Your task to perform on an android device: toggle notifications settings in the gmail app Image 0: 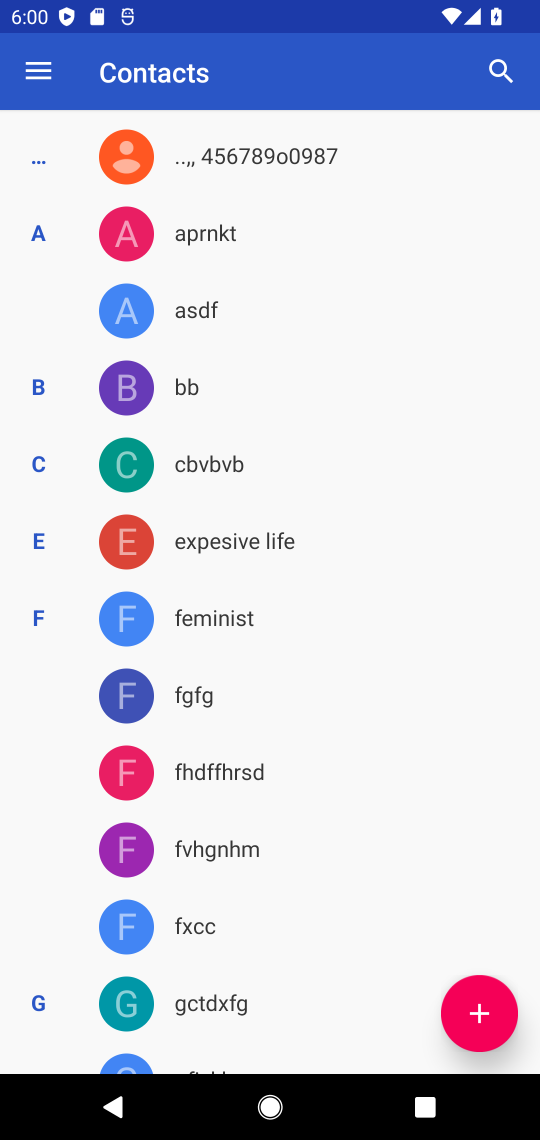
Step 0: press home button
Your task to perform on an android device: toggle notifications settings in the gmail app Image 1: 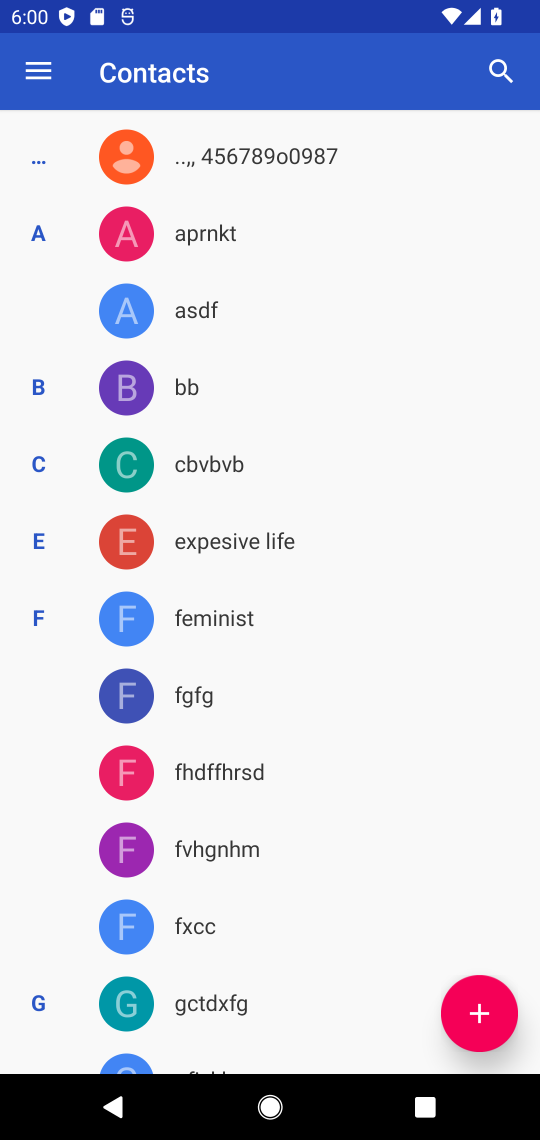
Step 1: press home button
Your task to perform on an android device: toggle notifications settings in the gmail app Image 2: 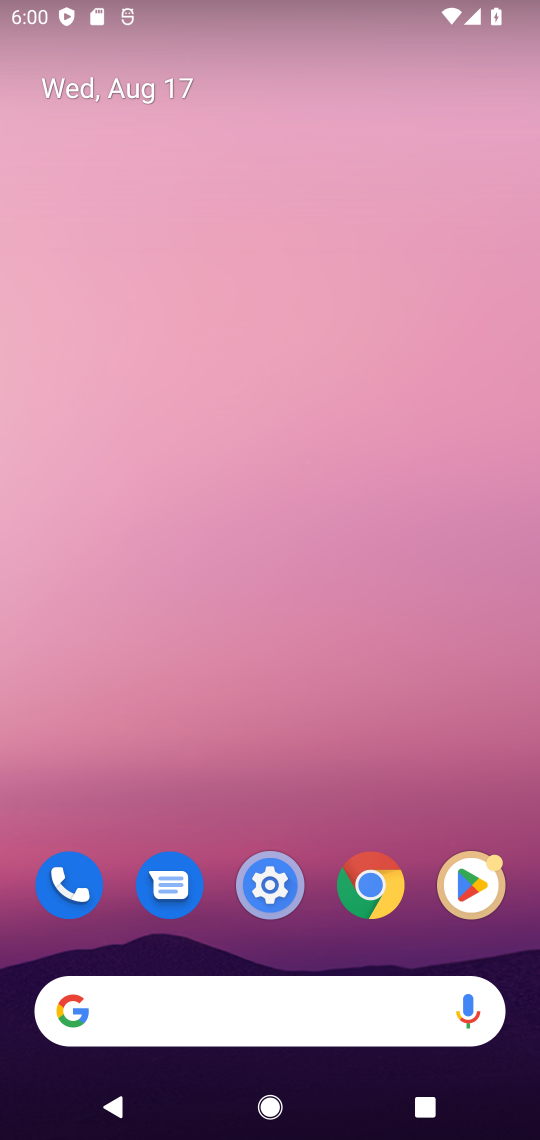
Step 2: drag from (277, 574) to (322, 96)
Your task to perform on an android device: toggle notifications settings in the gmail app Image 3: 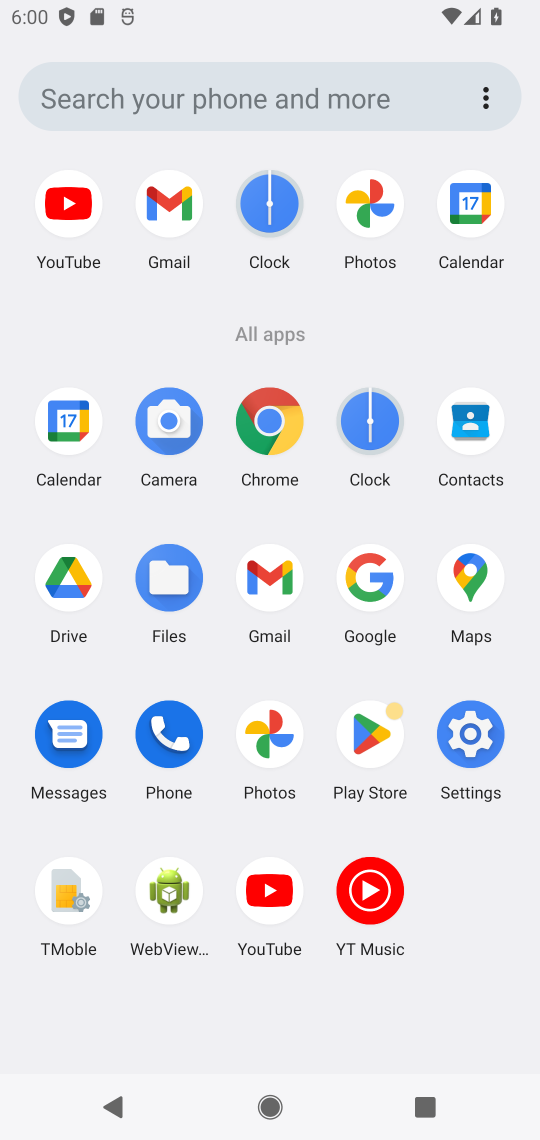
Step 3: click (292, 580)
Your task to perform on an android device: toggle notifications settings in the gmail app Image 4: 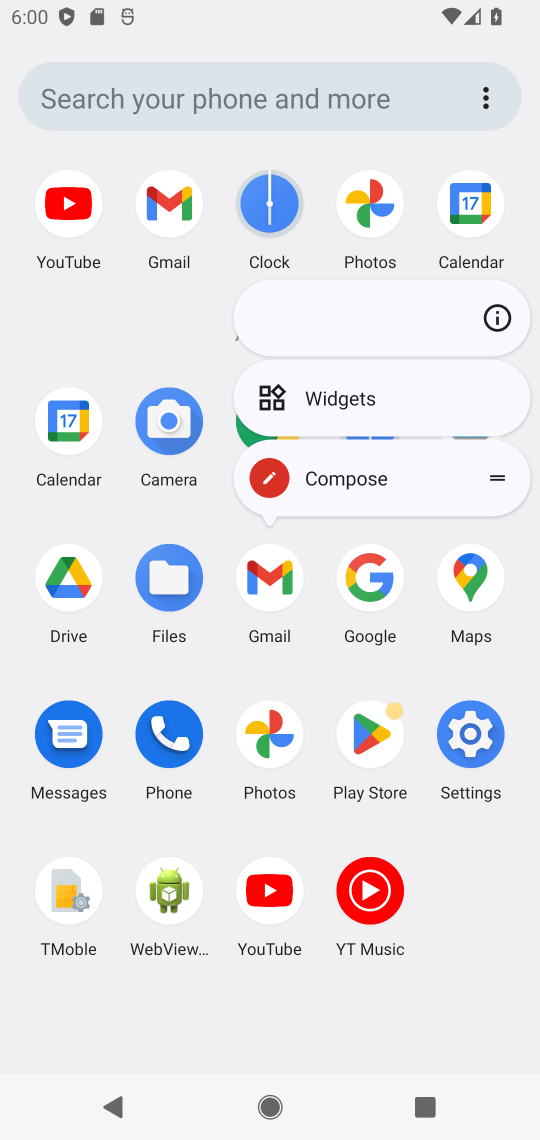
Step 4: click (292, 583)
Your task to perform on an android device: toggle notifications settings in the gmail app Image 5: 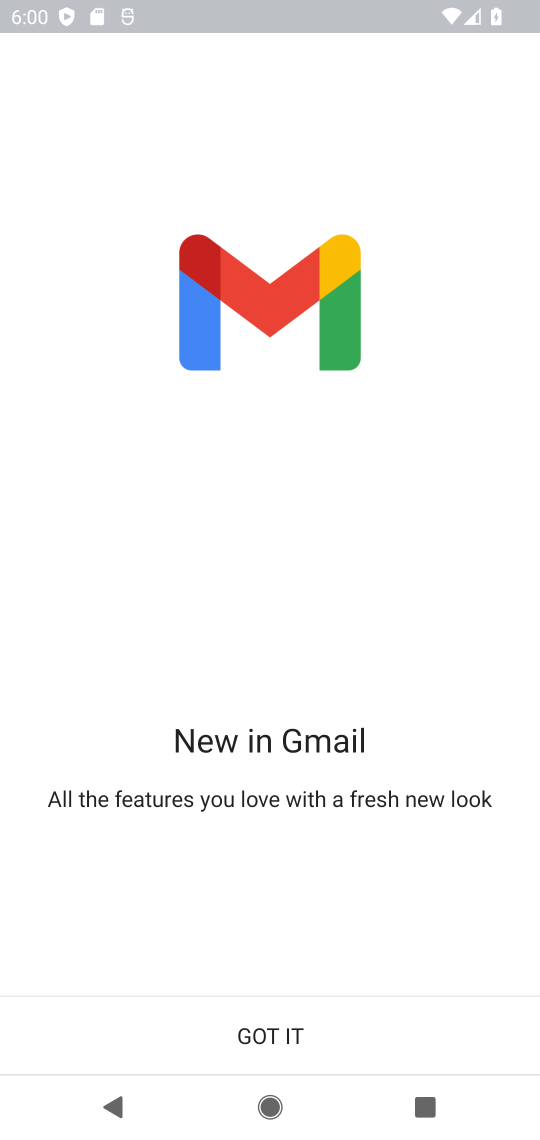
Step 5: click (285, 1005)
Your task to perform on an android device: toggle notifications settings in the gmail app Image 6: 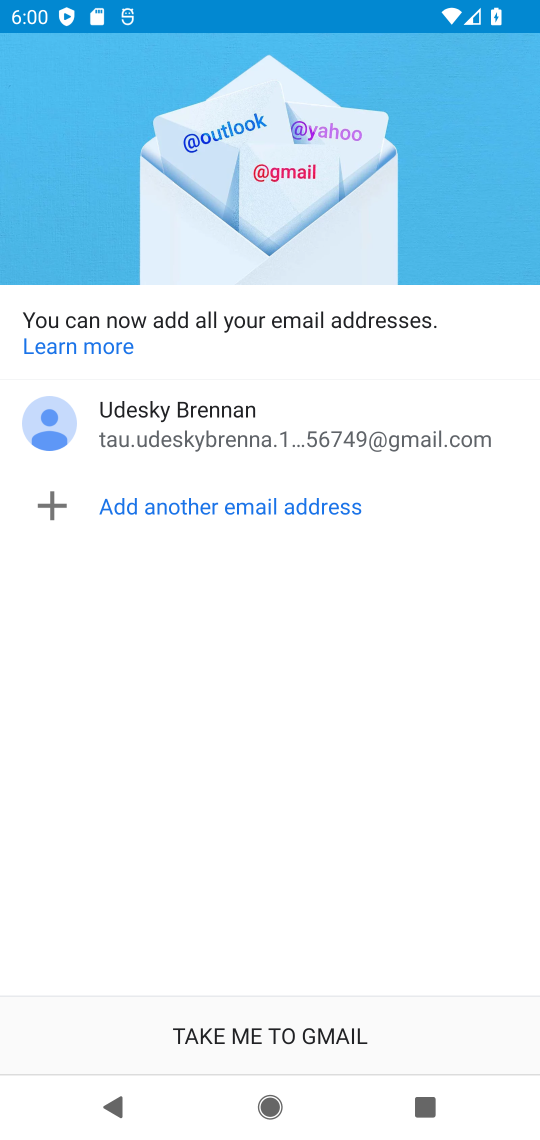
Step 6: click (292, 1026)
Your task to perform on an android device: toggle notifications settings in the gmail app Image 7: 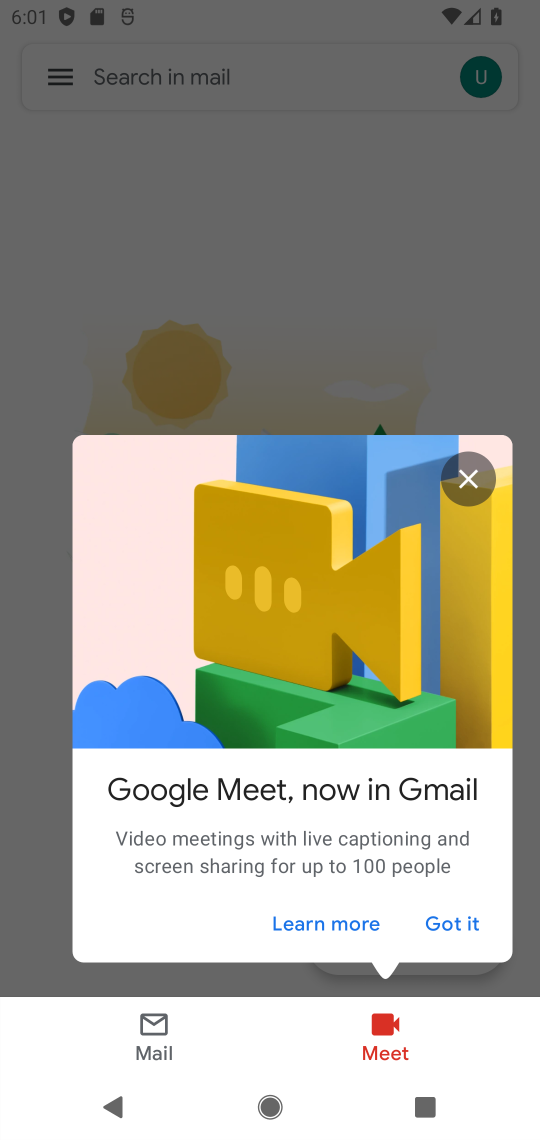
Step 7: click (461, 480)
Your task to perform on an android device: toggle notifications settings in the gmail app Image 8: 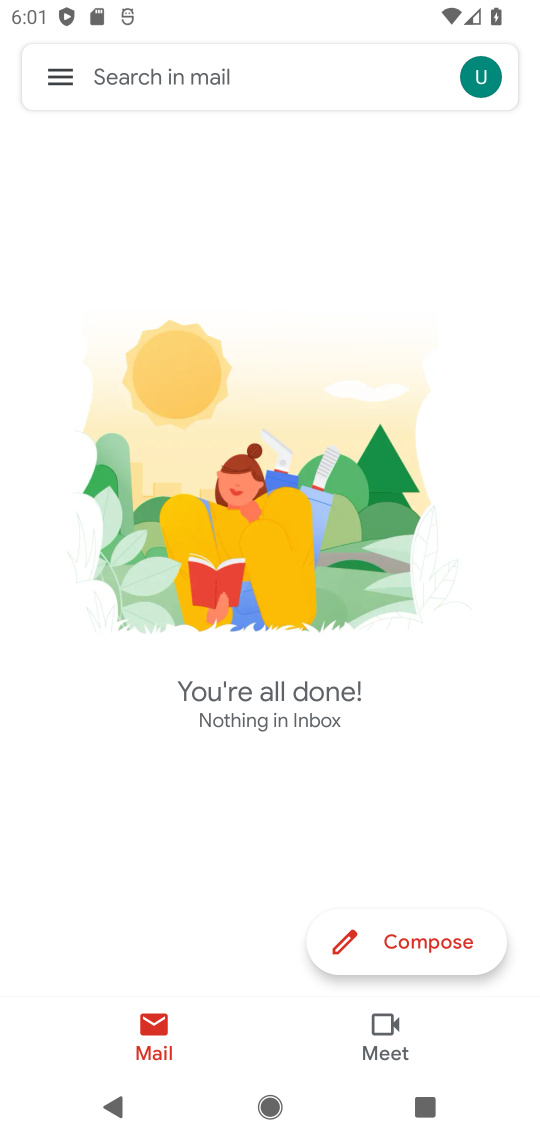
Step 8: click (52, 68)
Your task to perform on an android device: toggle notifications settings in the gmail app Image 9: 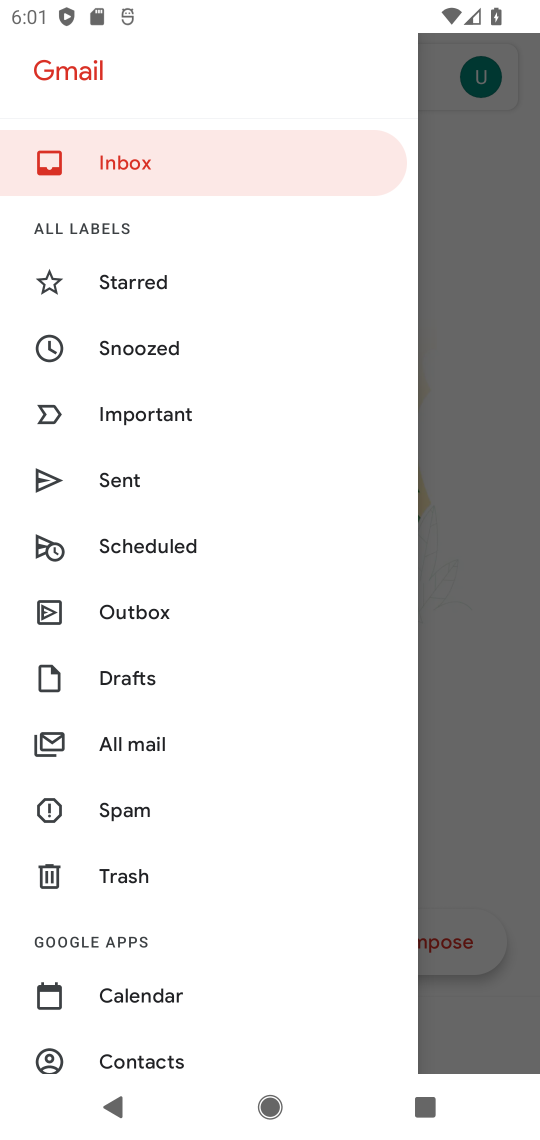
Step 9: drag from (146, 888) to (314, 153)
Your task to perform on an android device: toggle notifications settings in the gmail app Image 10: 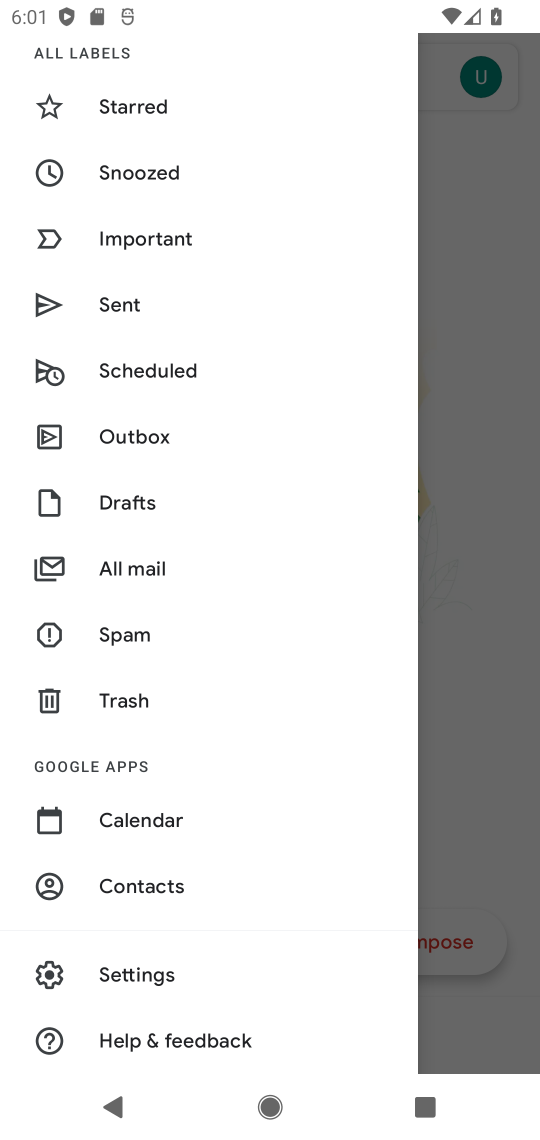
Step 10: click (138, 960)
Your task to perform on an android device: toggle notifications settings in the gmail app Image 11: 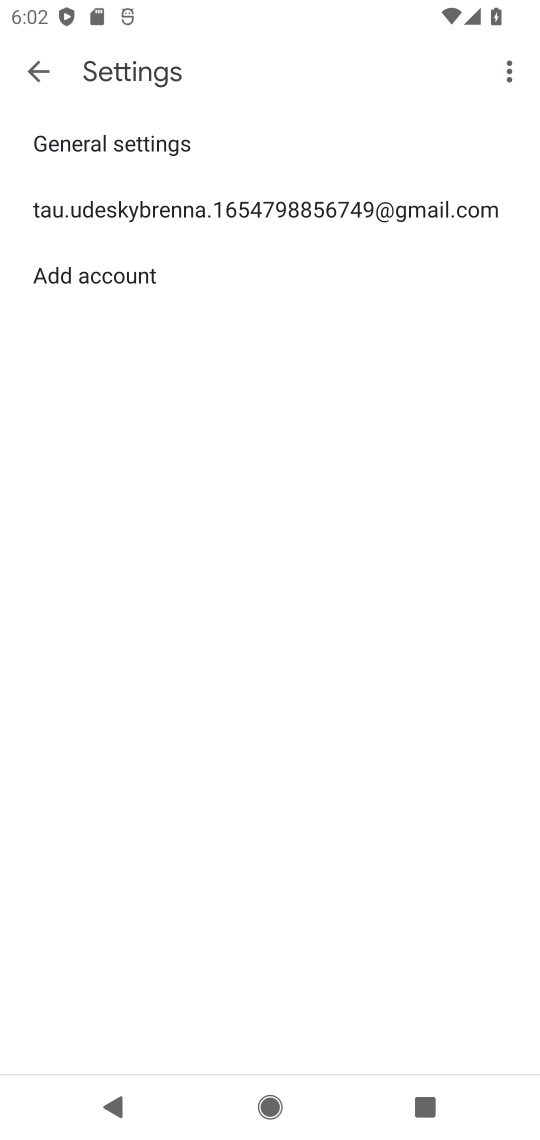
Step 11: click (336, 199)
Your task to perform on an android device: toggle notifications settings in the gmail app Image 12: 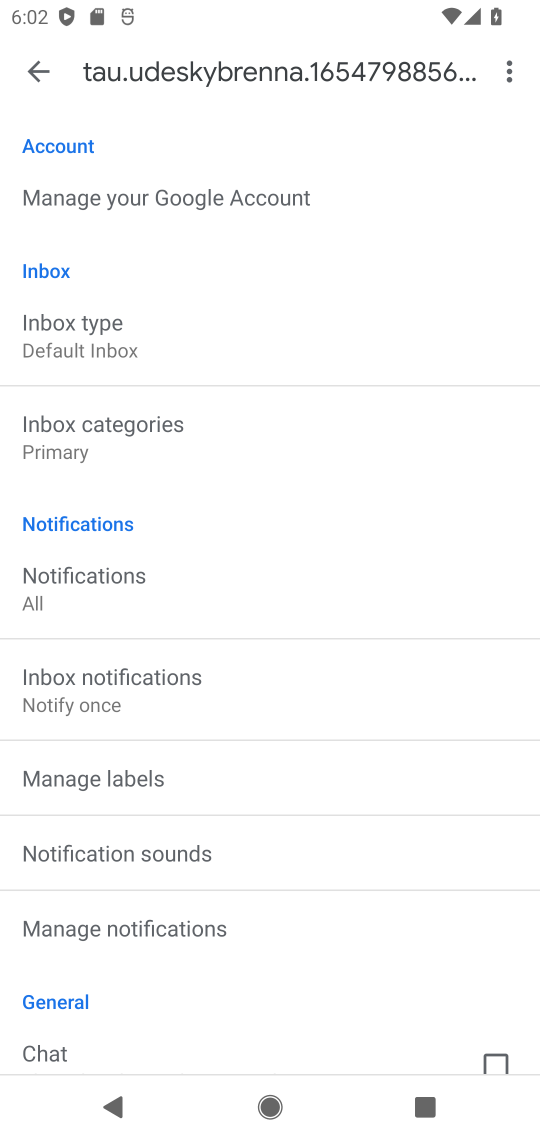
Step 12: click (132, 931)
Your task to perform on an android device: toggle notifications settings in the gmail app Image 13: 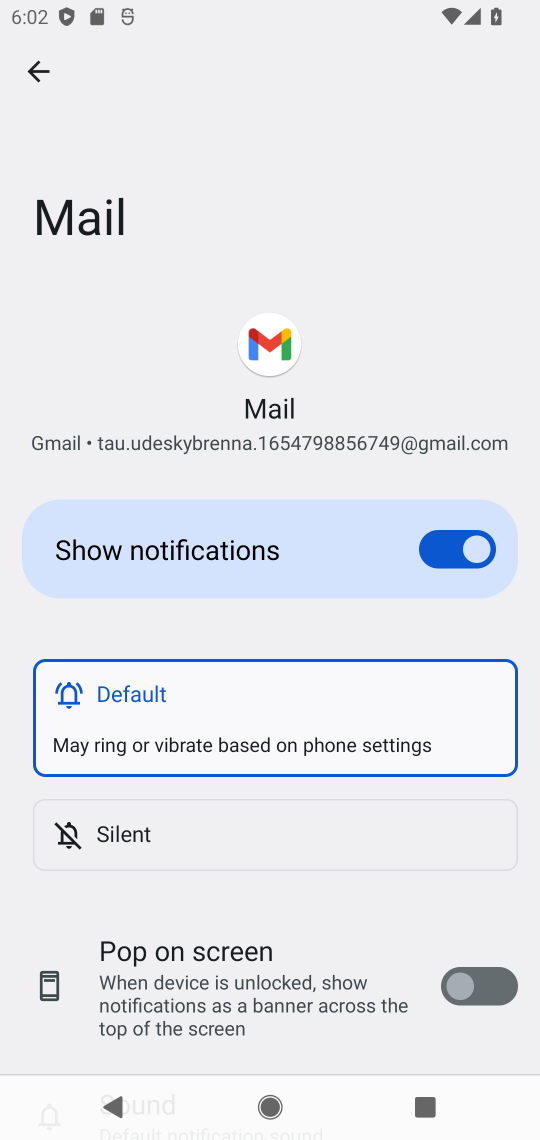
Step 13: click (462, 538)
Your task to perform on an android device: toggle notifications settings in the gmail app Image 14: 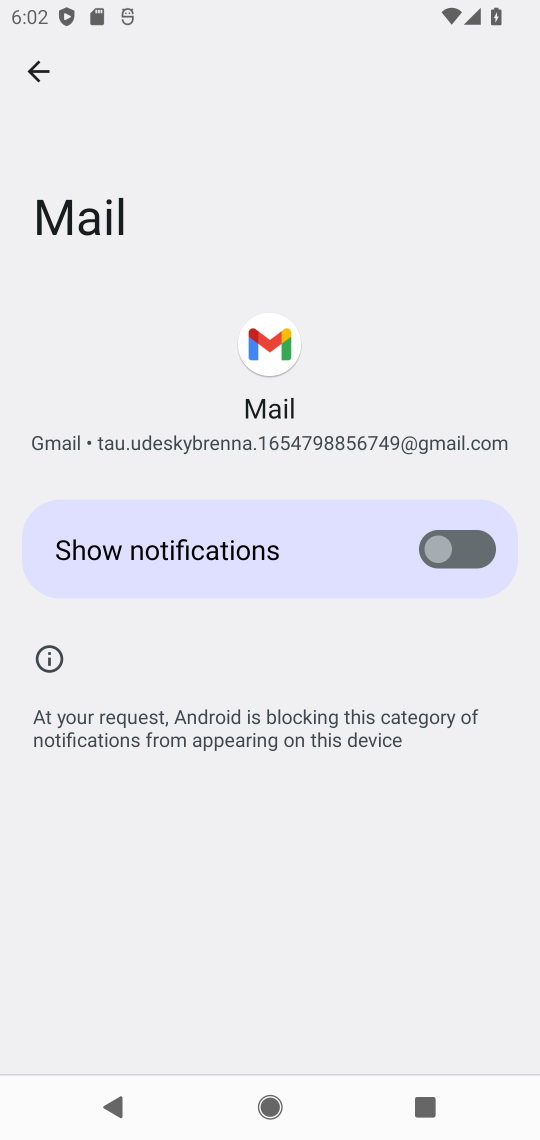
Step 14: task complete